Your task to perform on an android device: turn on showing notifications on the lock screen Image 0: 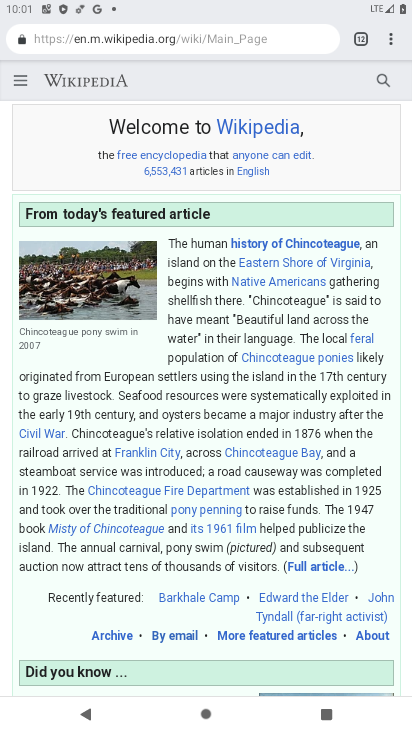
Step 0: press home button
Your task to perform on an android device: turn on showing notifications on the lock screen Image 1: 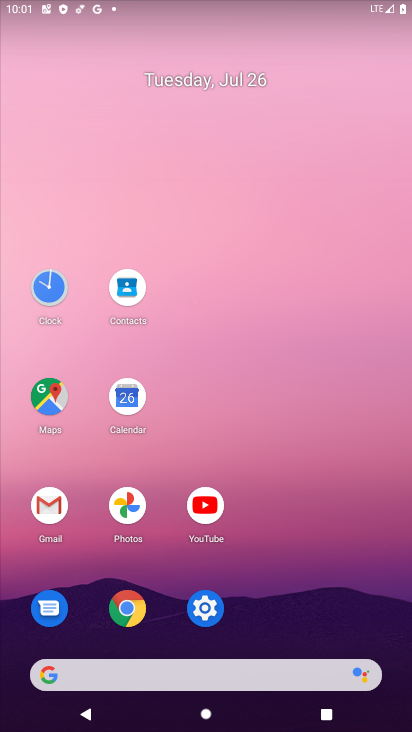
Step 1: click (203, 606)
Your task to perform on an android device: turn on showing notifications on the lock screen Image 2: 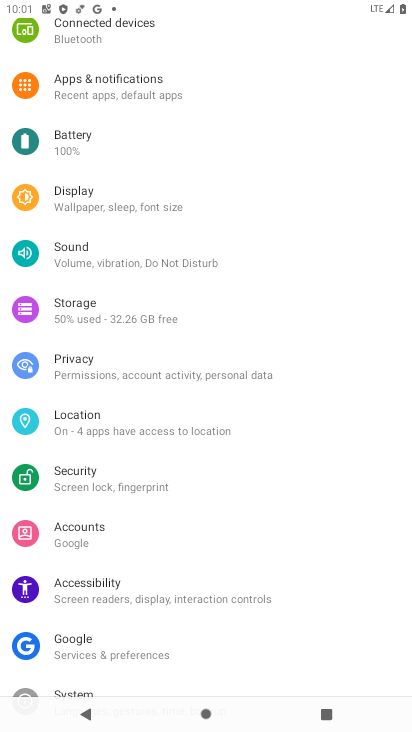
Step 2: click (104, 74)
Your task to perform on an android device: turn on showing notifications on the lock screen Image 3: 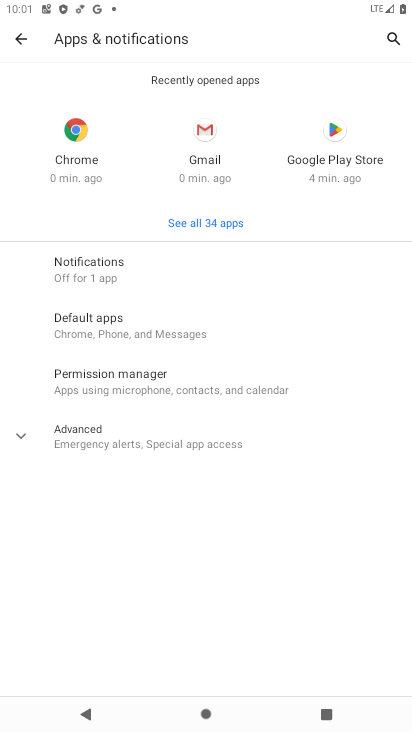
Step 3: click (86, 264)
Your task to perform on an android device: turn on showing notifications on the lock screen Image 4: 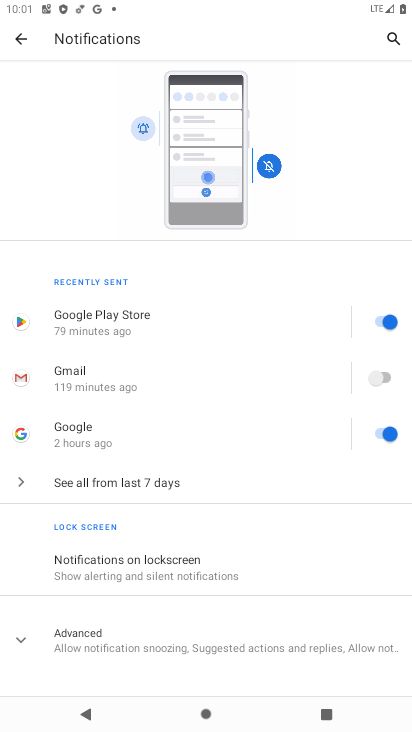
Step 4: click (150, 564)
Your task to perform on an android device: turn on showing notifications on the lock screen Image 5: 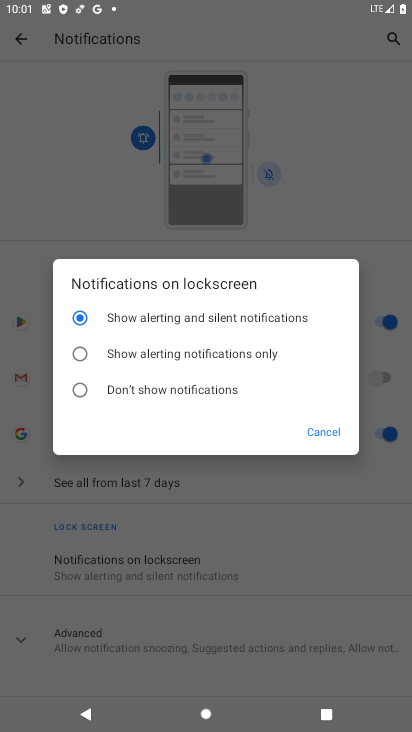
Step 5: task complete